Your task to perform on an android device: delete location history Image 0: 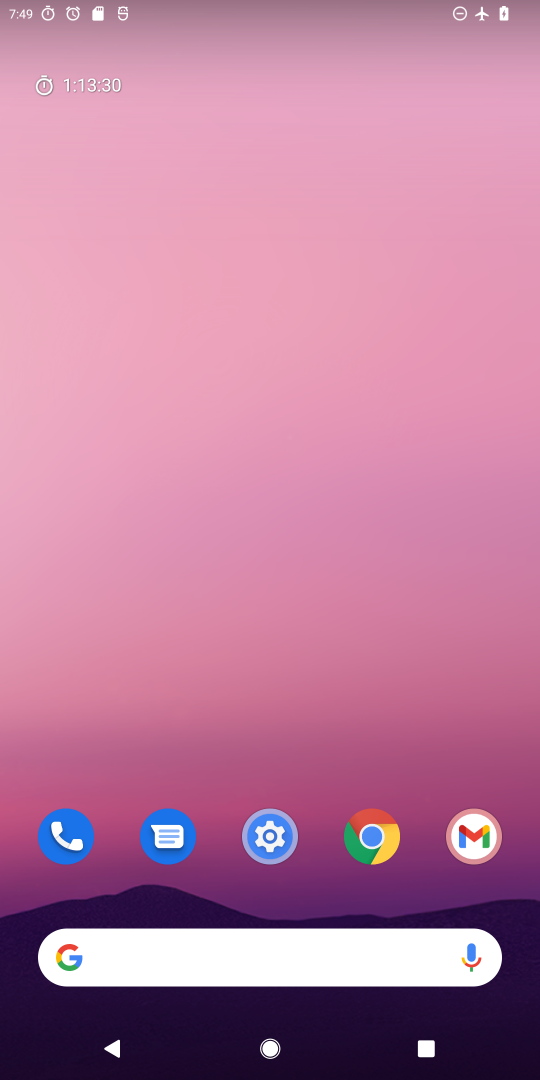
Step 0: drag from (288, 730) to (394, 109)
Your task to perform on an android device: delete location history Image 1: 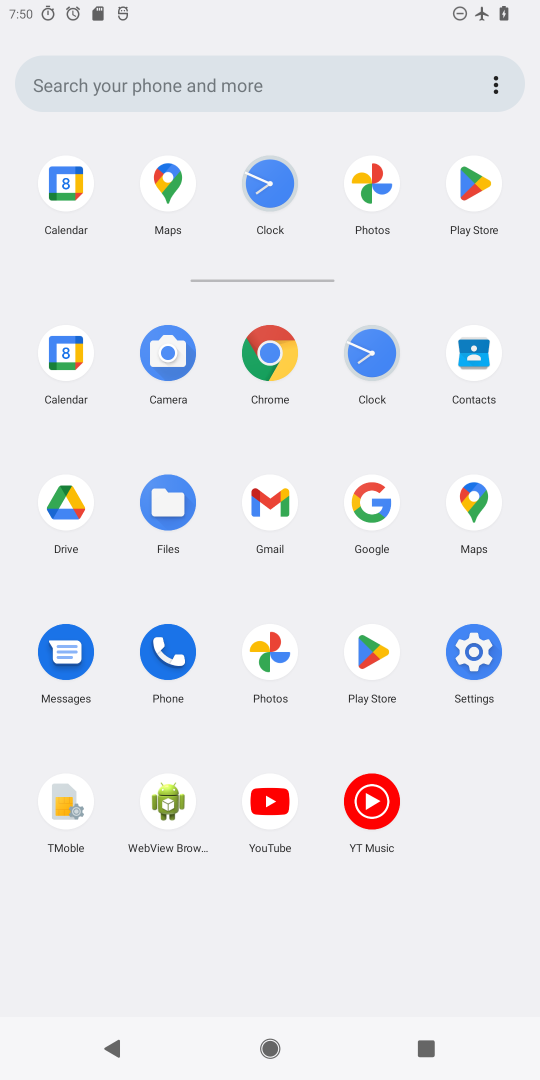
Step 1: click (466, 680)
Your task to perform on an android device: delete location history Image 2: 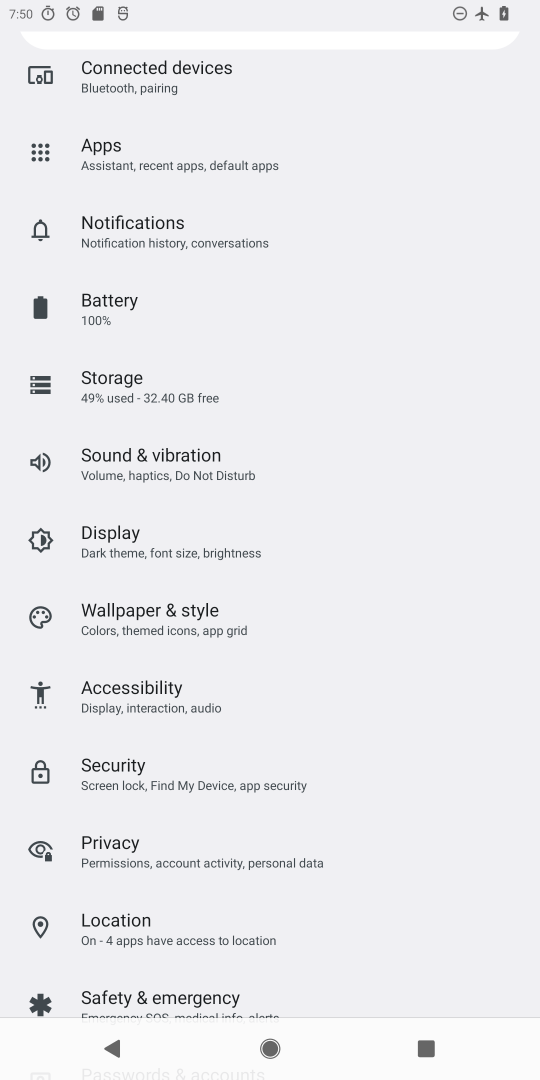
Step 2: click (220, 919)
Your task to perform on an android device: delete location history Image 3: 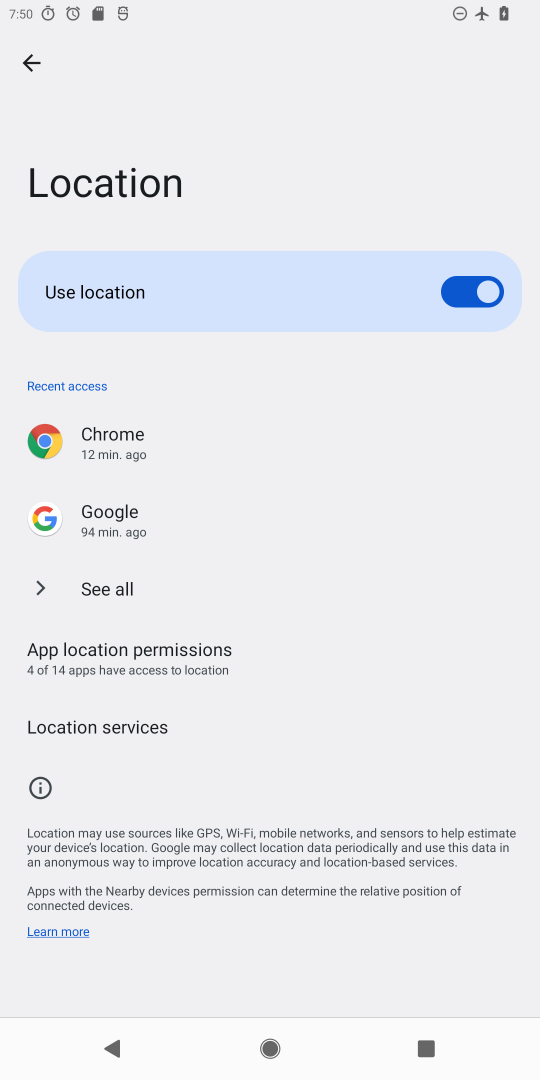
Step 3: click (60, 785)
Your task to perform on an android device: delete location history Image 4: 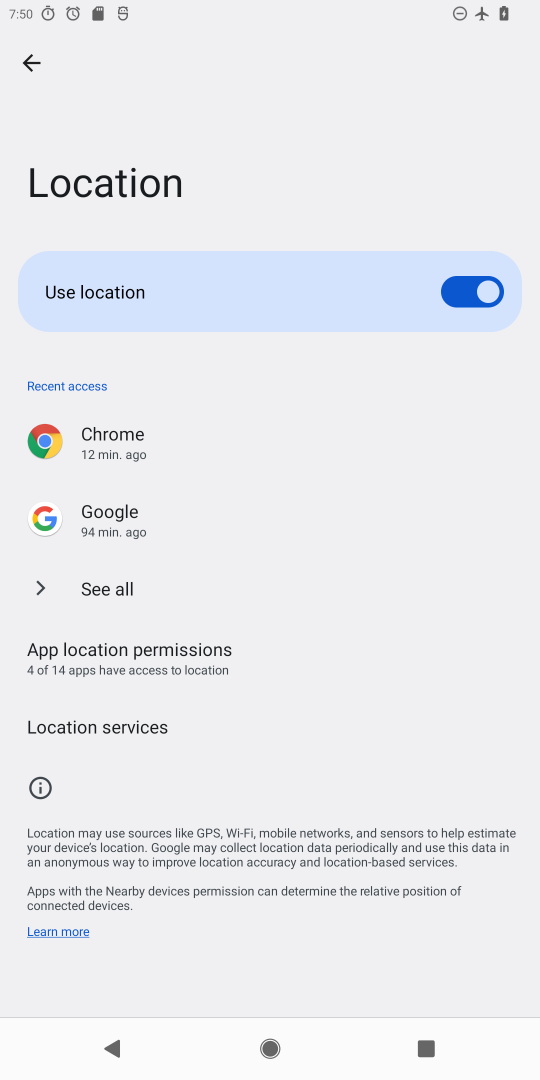
Step 4: drag from (183, 927) to (169, 623)
Your task to perform on an android device: delete location history Image 5: 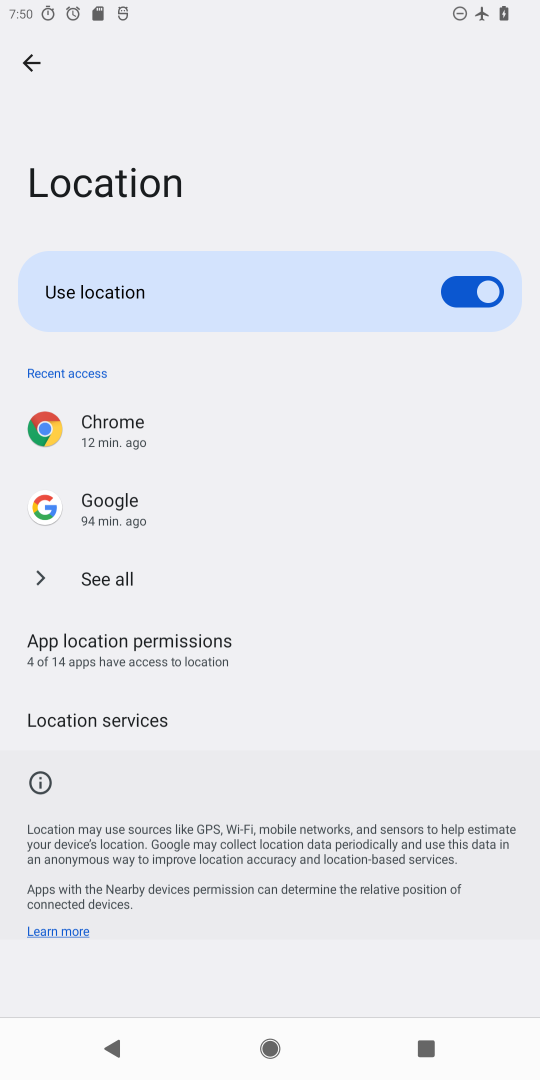
Step 5: click (85, 723)
Your task to perform on an android device: delete location history Image 6: 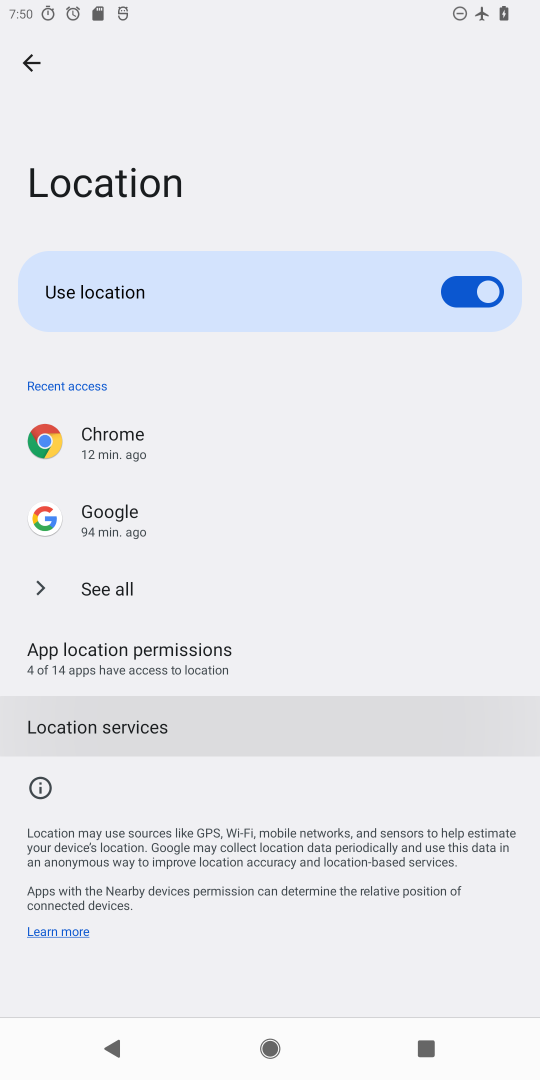
Step 6: click (85, 723)
Your task to perform on an android device: delete location history Image 7: 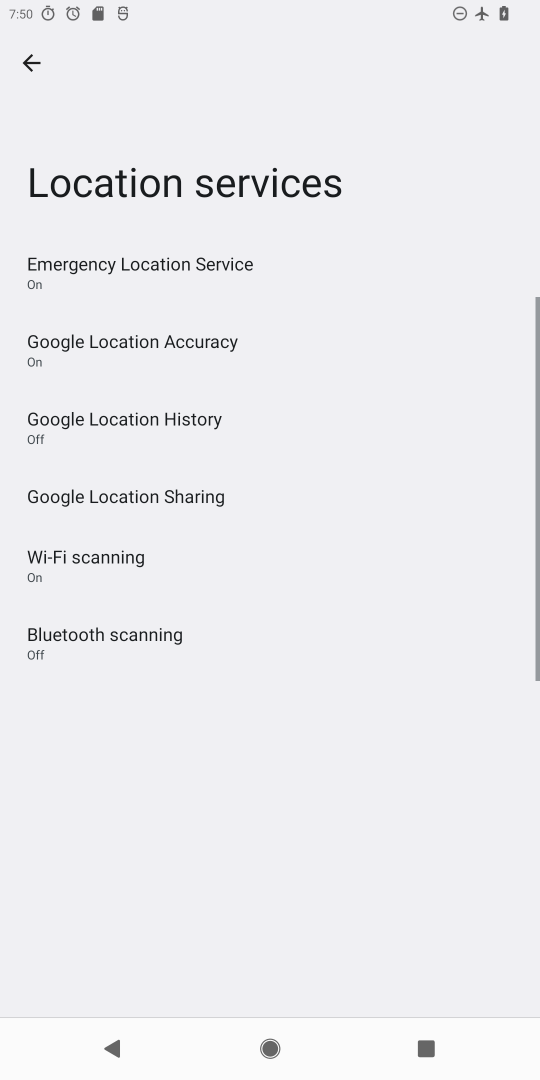
Step 7: click (189, 411)
Your task to perform on an android device: delete location history Image 8: 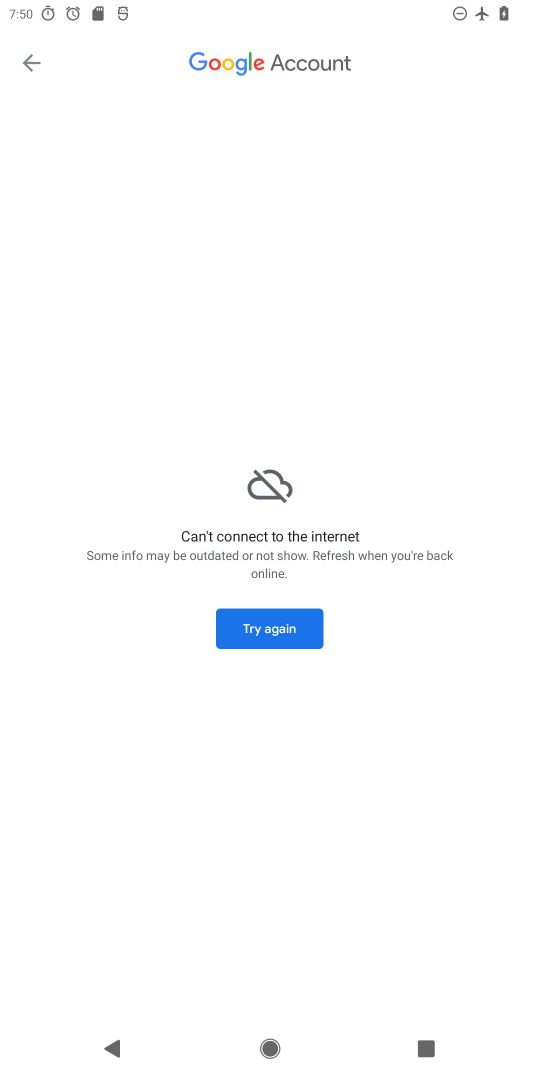
Step 8: task complete